Your task to perform on an android device: see tabs open on other devices in the chrome app Image 0: 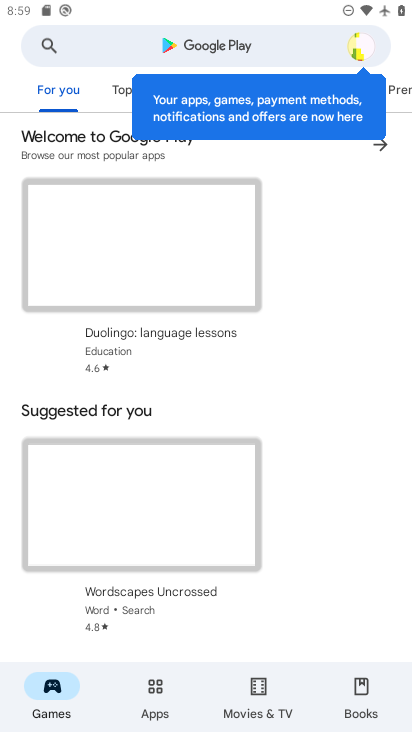
Step 0: press home button
Your task to perform on an android device: see tabs open on other devices in the chrome app Image 1: 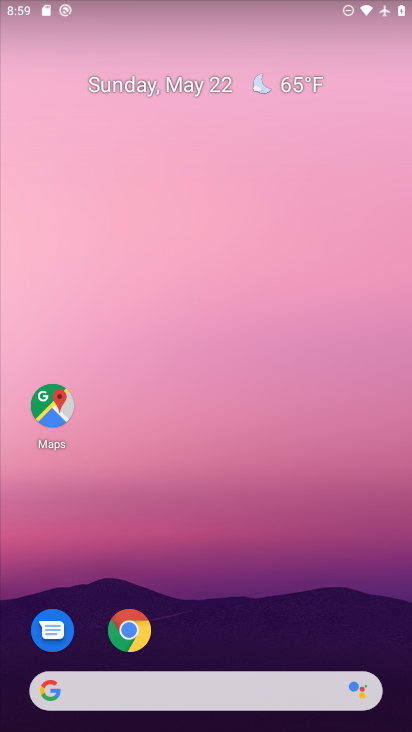
Step 1: drag from (160, 689) to (270, 147)
Your task to perform on an android device: see tabs open on other devices in the chrome app Image 2: 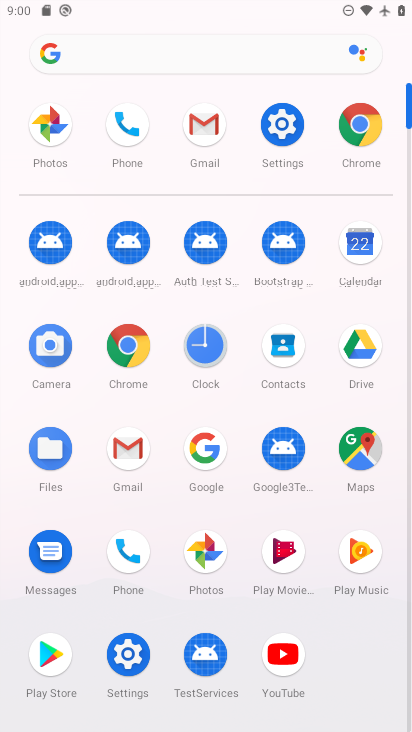
Step 2: click (367, 135)
Your task to perform on an android device: see tabs open on other devices in the chrome app Image 3: 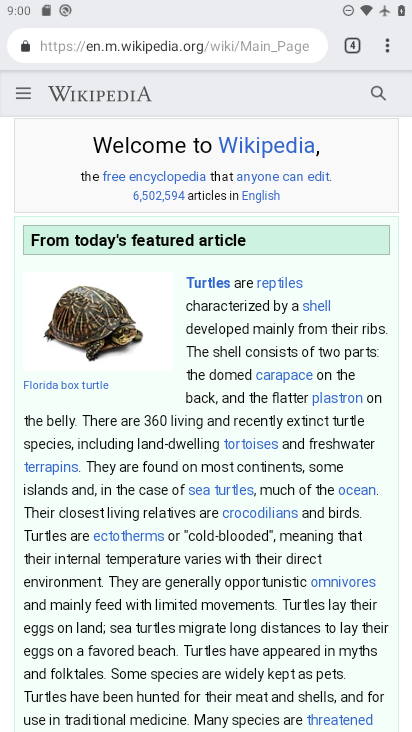
Step 3: task complete